Your task to perform on an android device: Open privacy settings Image 0: 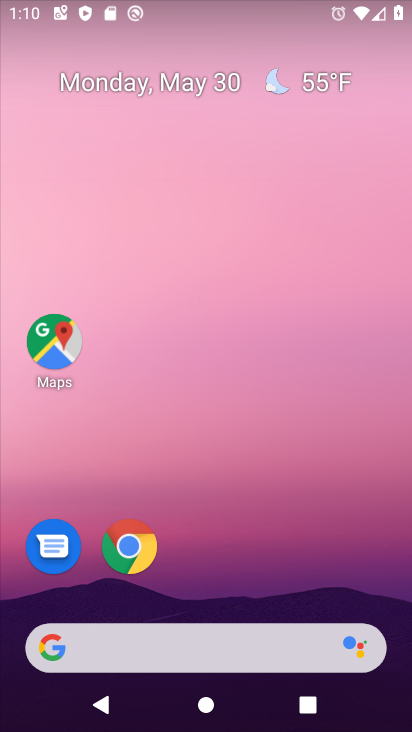
Step 0: press home button
Your task to perform on an android device: Open privacy settings Image 1: 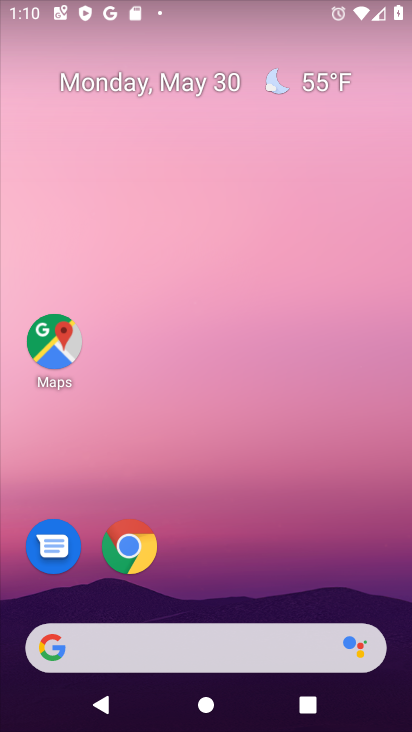
Step 1: drag from (305, 596) to (306, 149)
Your task to perform on an android device: Open privacy settings Image 2: 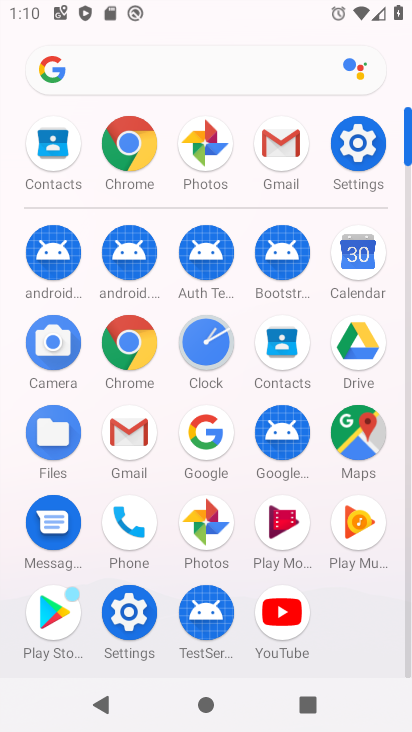
Step 2: click (360, 155)
Your task to perform on an android device: Open privacy settings Image 3: 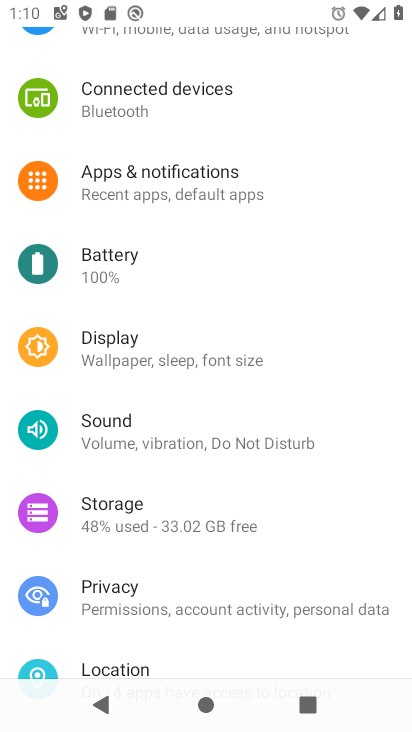
Step 3: click (100, 598)
Your task to perform on an android device: Open privacy settings Image 4: 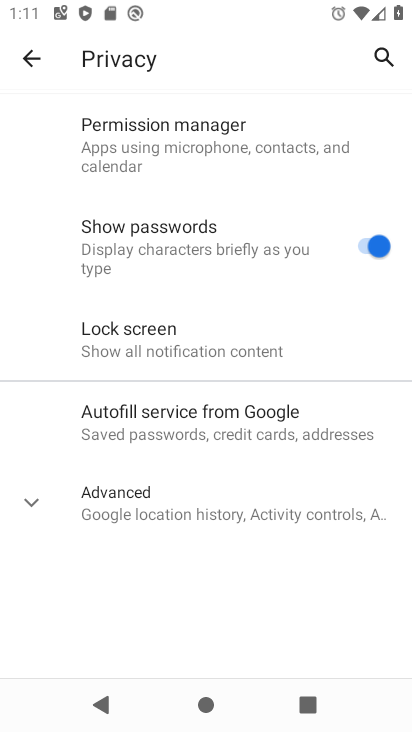
Step 4: task complete